Your task to perform on an android device: Open Reddit.com Image 0: 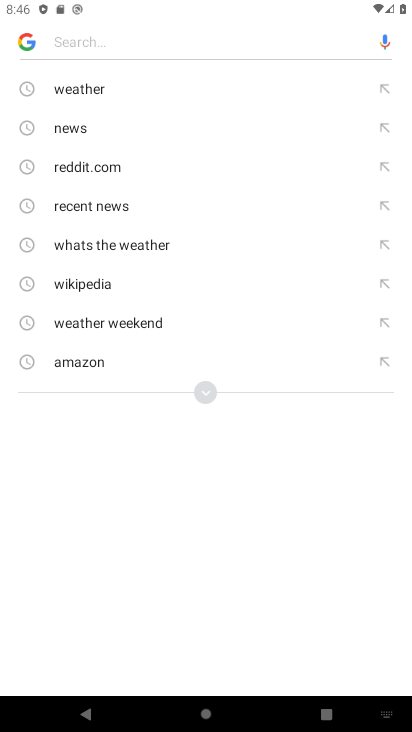
Step 0: click (119, 168)
Your task to perform on an android device: Open Reddit.com Image 1: 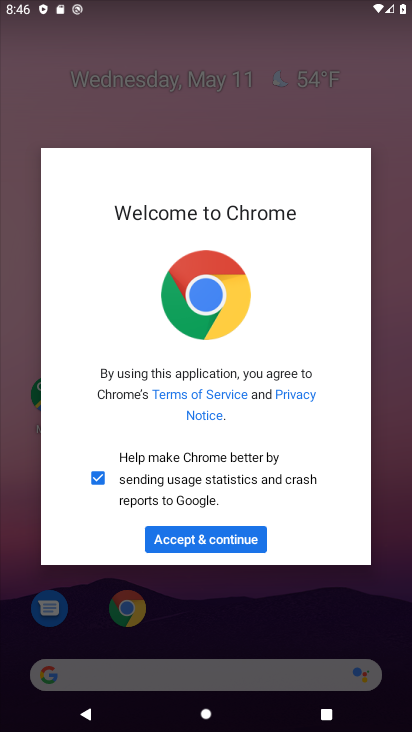
Step 1: click (213, 553)
Your task to perform on an android device: Open Reddit.com Image 2: 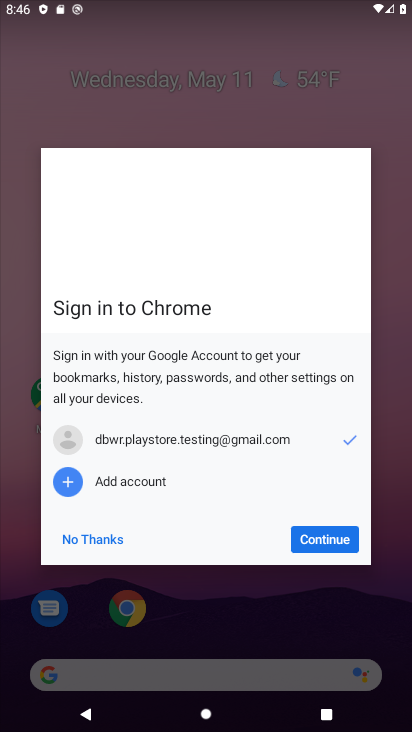
Step 2: click (337, 511)
Your task to perform on an android device: Open Reddit.com Image 3: 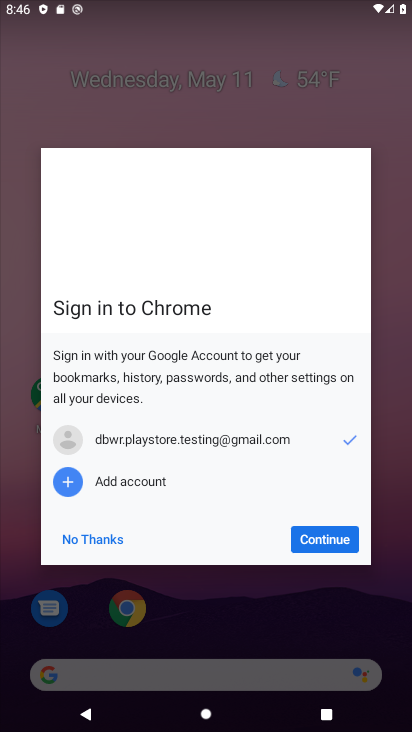
Step 3: click (322, 548)
Your task to perform on an android device: Open Reddit.com Image 4: 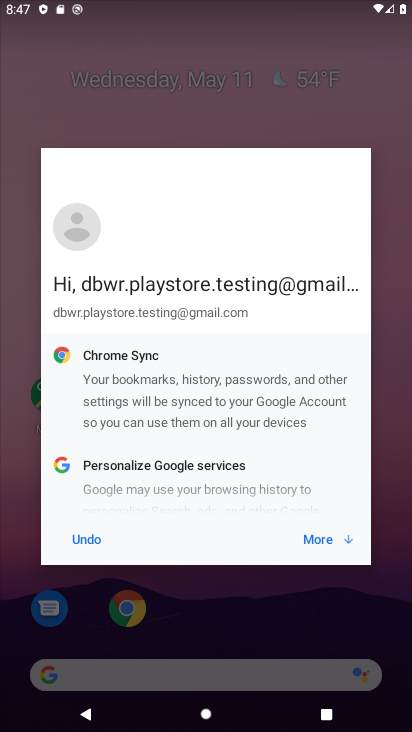
Step 4: click (321, 547)
Your task to perform on an android device: Open Reddit.com Image 5: 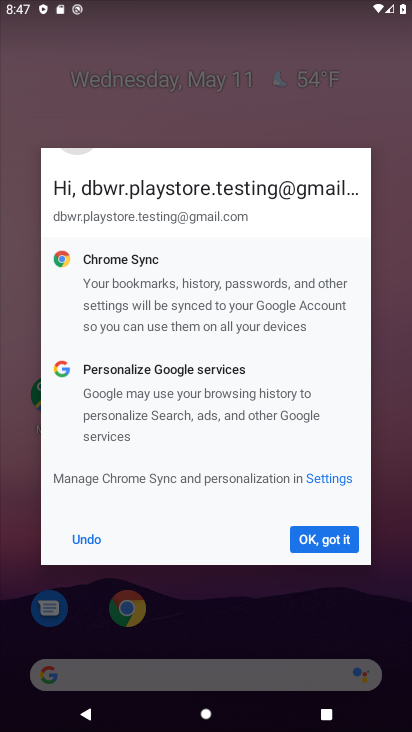
Step 5: click (321, 547)
Your task to perform on an android device: Open Reddit.com Image 6: 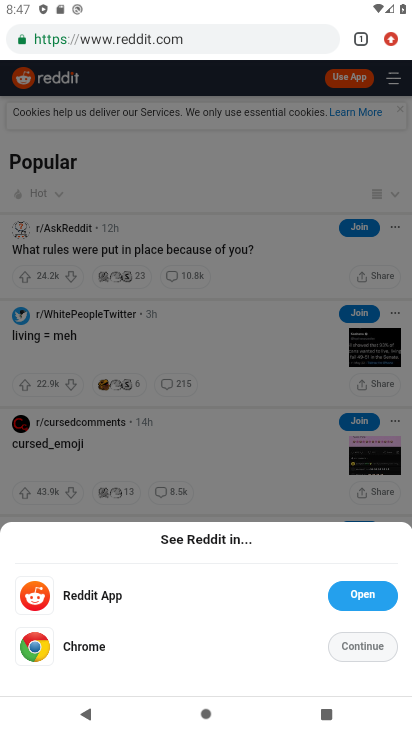
Step 6: click (360, 649)
Your task to perform on an android device: Open Reddit.com Image 7: 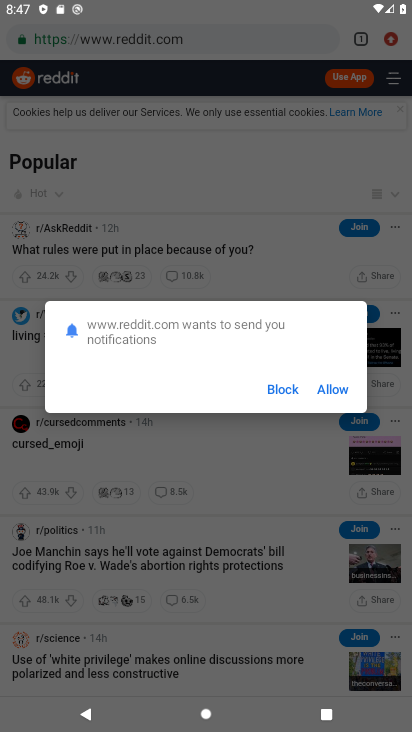
Step 7: click (338, 390)
Your task to perform on an android device: Open Reddit.com Image 8: 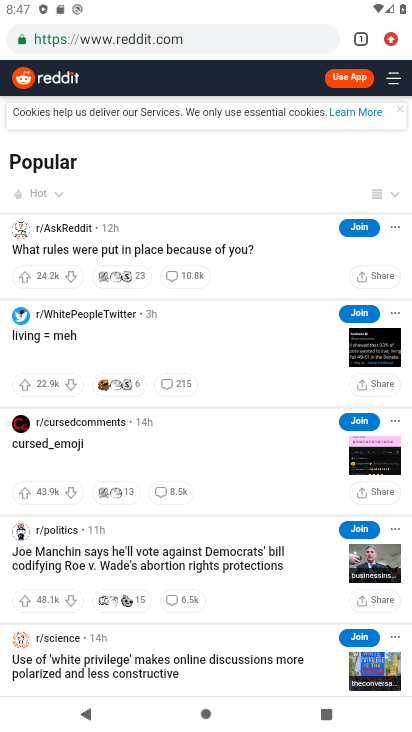
Step 8: task complete